Your task to perform on an android device: Add "dell xps" to the cart on newegg.com Image 0: 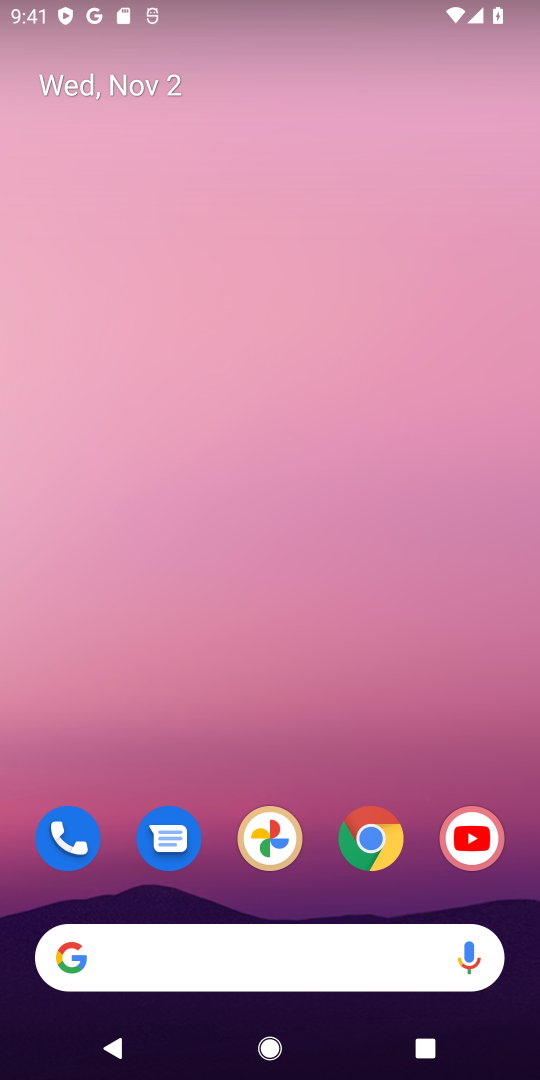
Step 0: click (386, 849)
Your task to perform on an android device: Add "dell xps" to the cart on newegg.com Image 1: 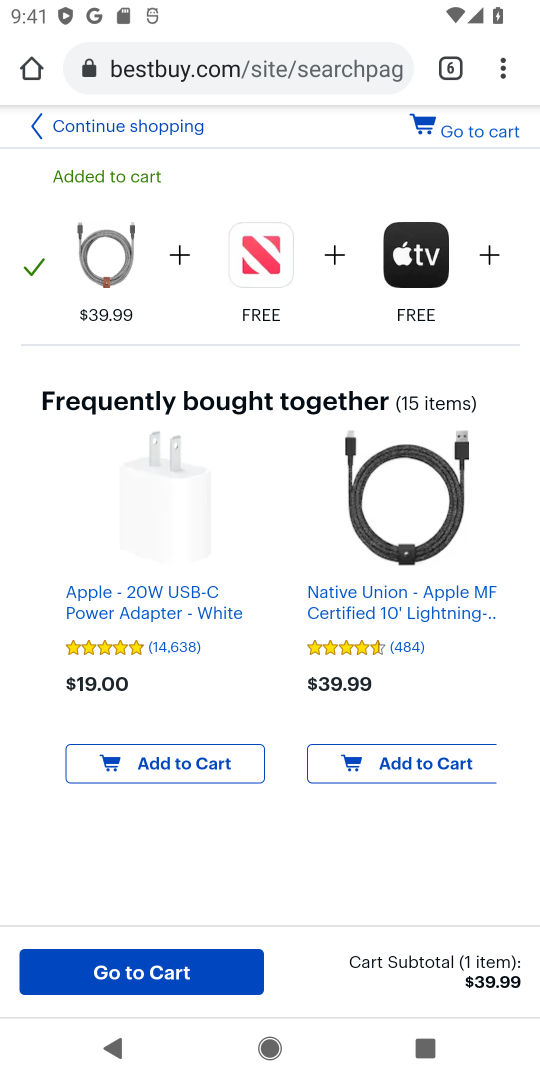
Step 1: click (445, 60)
Your task to perform on an android device: Add "dell xps" to the cart on newegg.com Image 2: 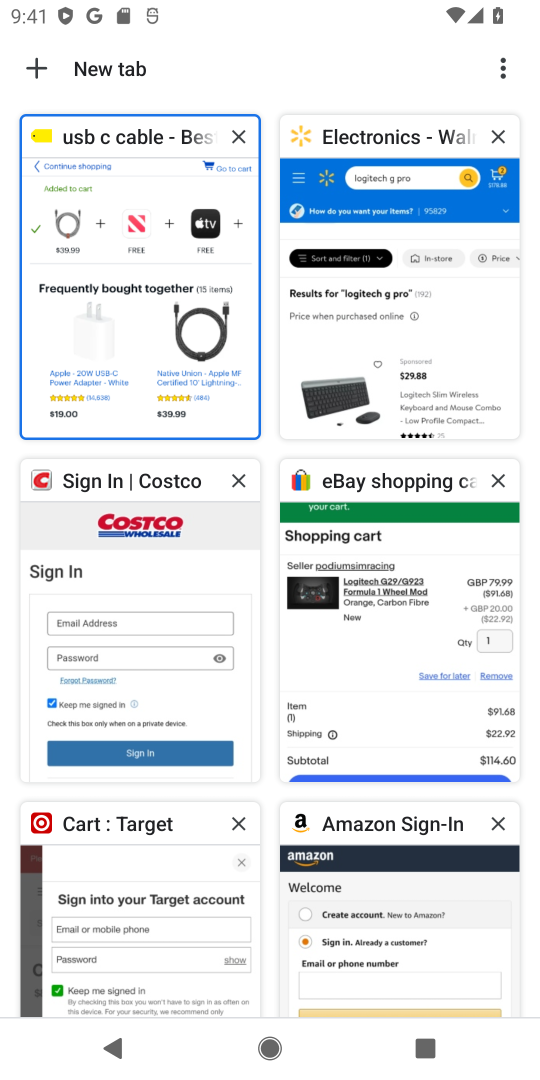
Step 2: click (38, 71)
Your task to perform on an android device: Add "dell xps" to the cart on newegg.com Image 3: 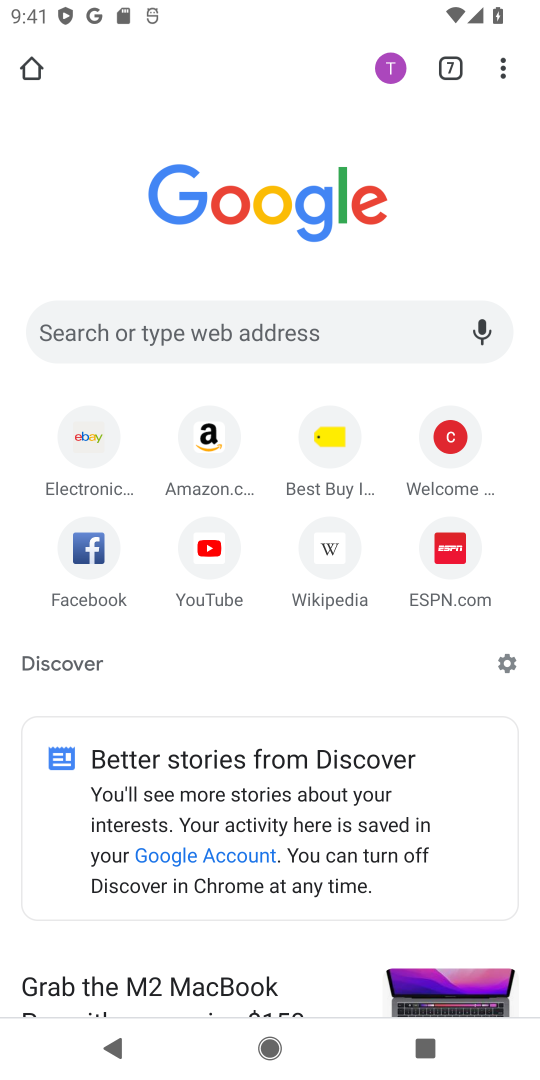
Step 3: click (179, 319)
Your task to perform on an android device: Add "dell xps" to the cart on newegg.com Image 4: 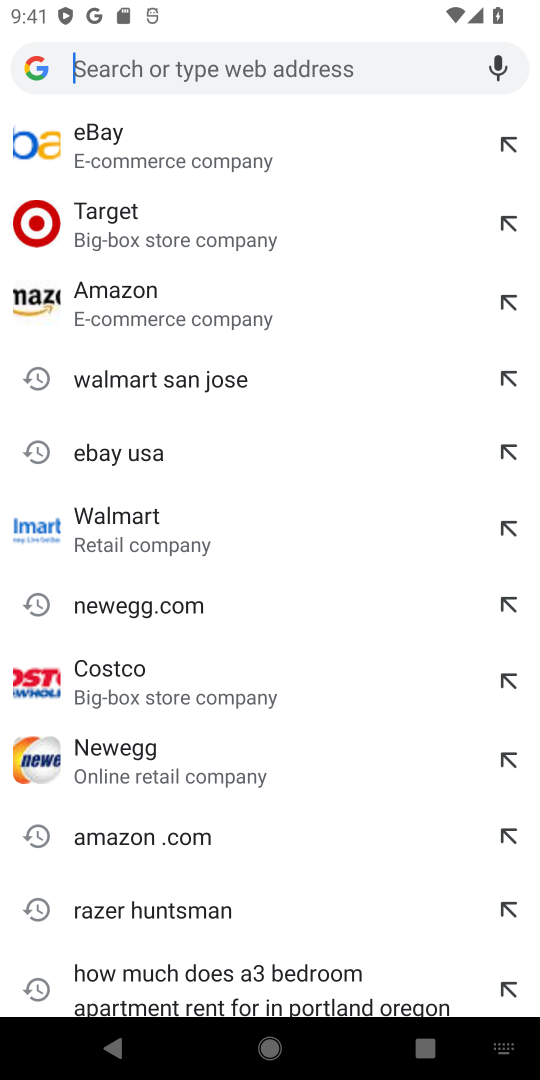
Step 4: click (151, 769)
Your task to perform on an android device: Add "dell xps" to the cart on newegg.com Image 5: 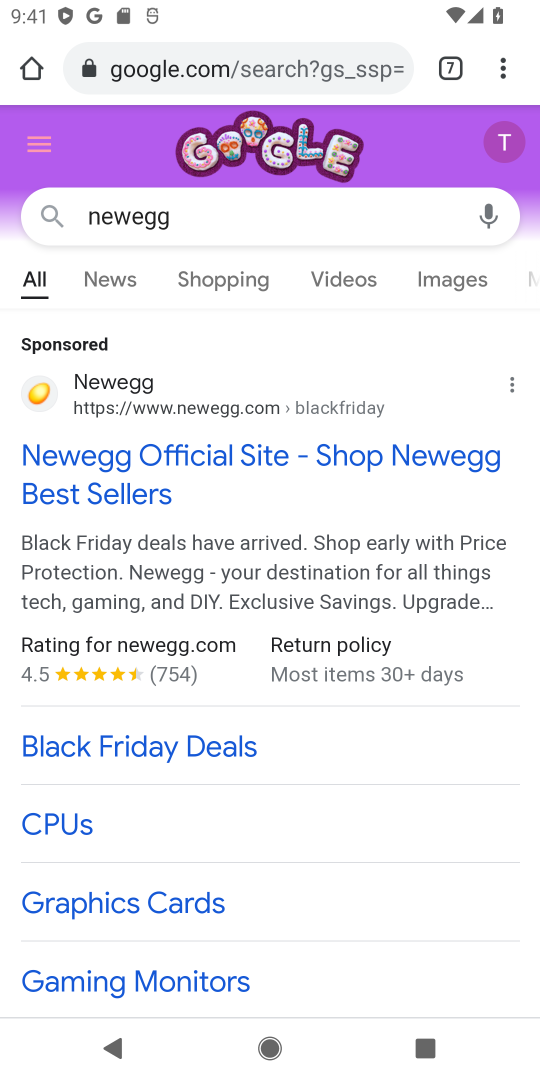
Step 5: drag from (264, 885) to (228, 482)
Your task to perform on an android device: Add "dell xps" to the cart on newegg.com Image 6: 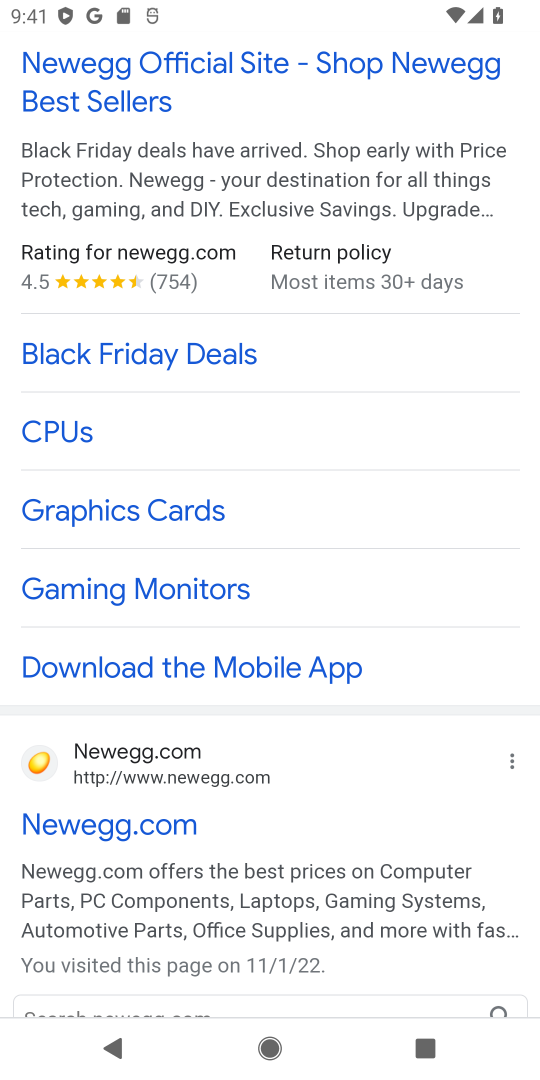
Step 6: drag from (223, 858) to (236, 431)
Your task to perform on an android device: Add "dell xps" to the cart on newegg.com Image 7: 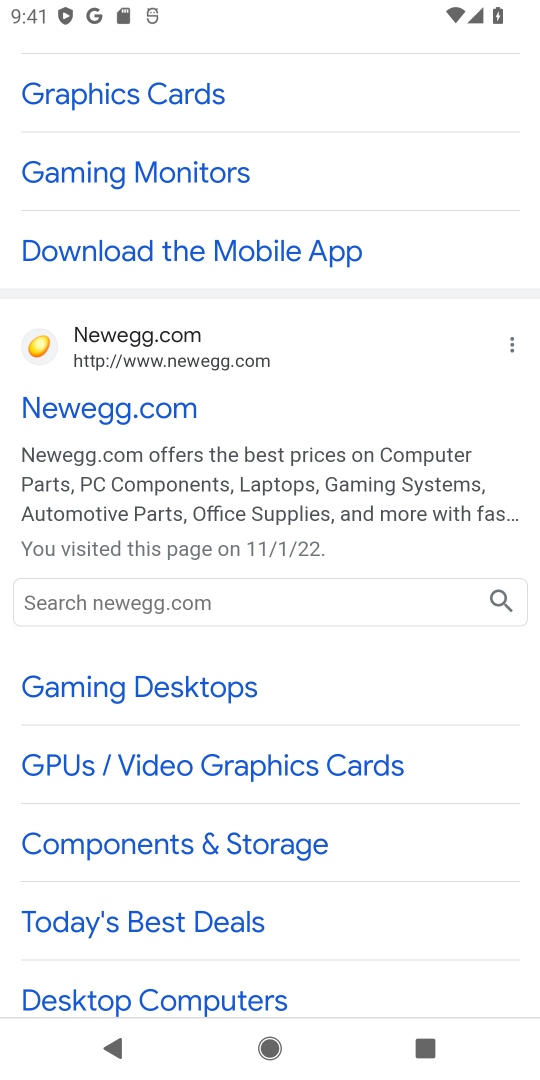
Step 7: click (91, 597)
Your task to perform on an android device: Add "dell xps" to the cart on newegg.com Image 8: 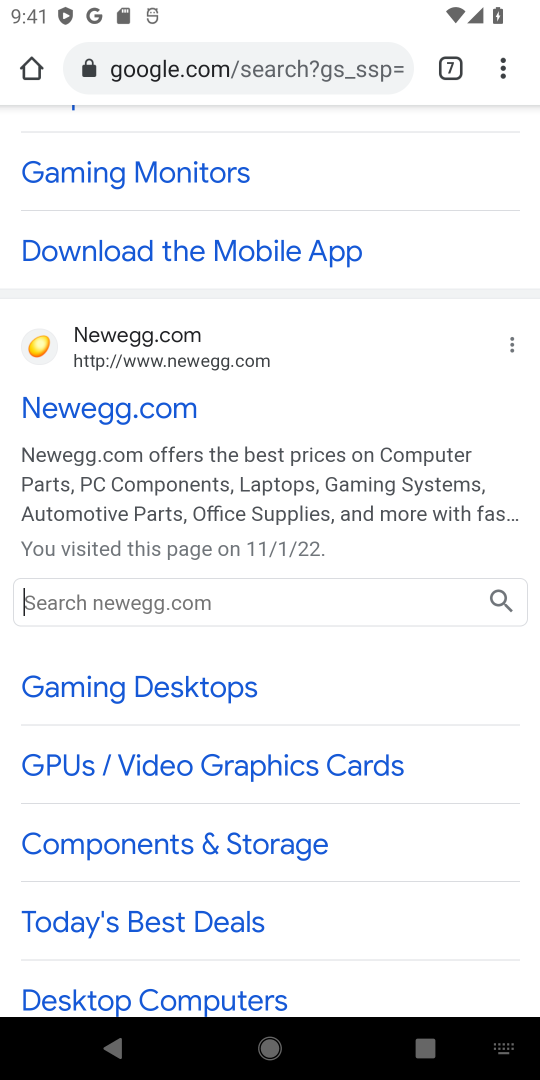
Step 8: type "dell xps"
Your task to perform on an android device: Add "dell xps" to the cart on newegg.com Image 9: 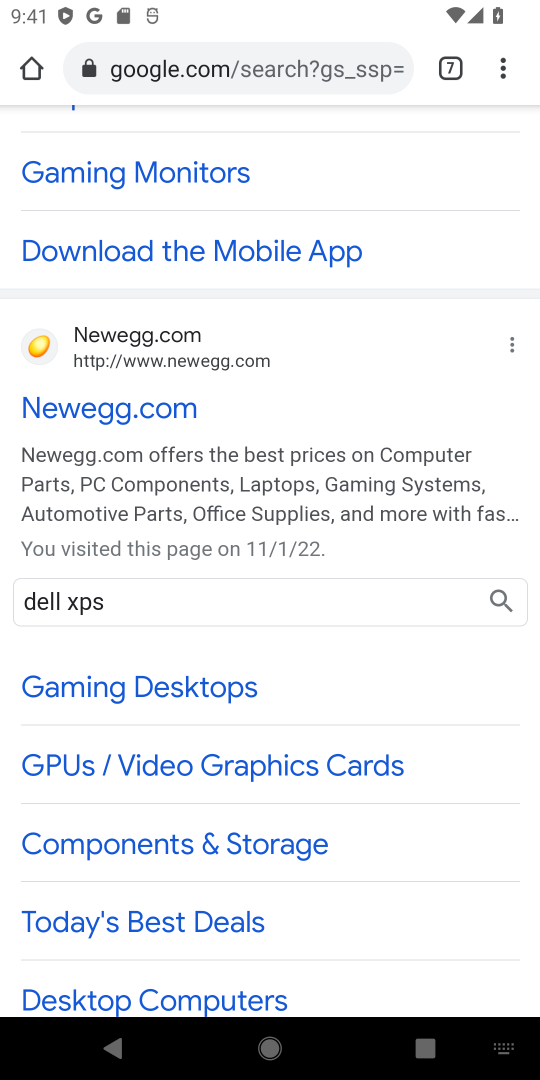
Step 9: click (497, 594)
Your task to perform on an android device: Add "dell xps" to the cart on newegg.com Image 10: 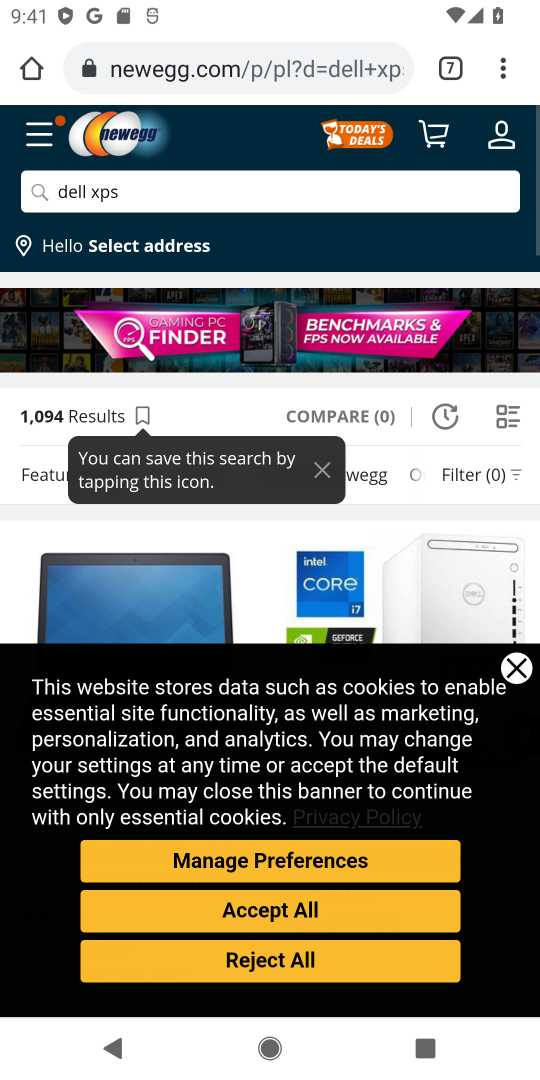
Step 10: click (338, 719)
Your task to perform on an android device: Add "dell xps" to the cart on newegg.com Image 11: 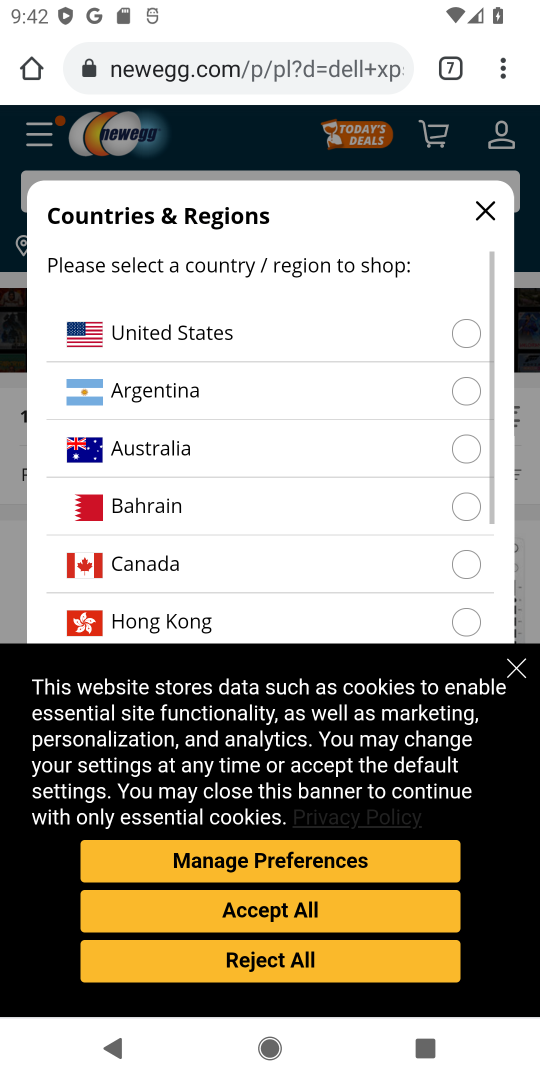
Step 11: click (521, 659)
Your task to perform on an android device: Add "dell xps" to the cart on newegg.com Image 12: 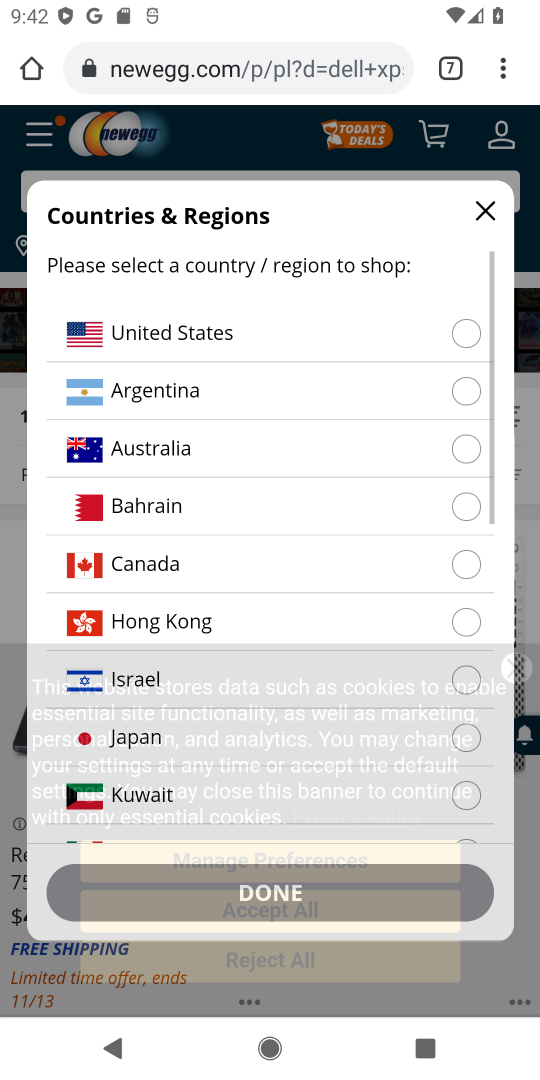
Step 12: click (467, 337)
Your task to perform on an android device: Add "dell xps" to the cart on newegg.com Image 13: 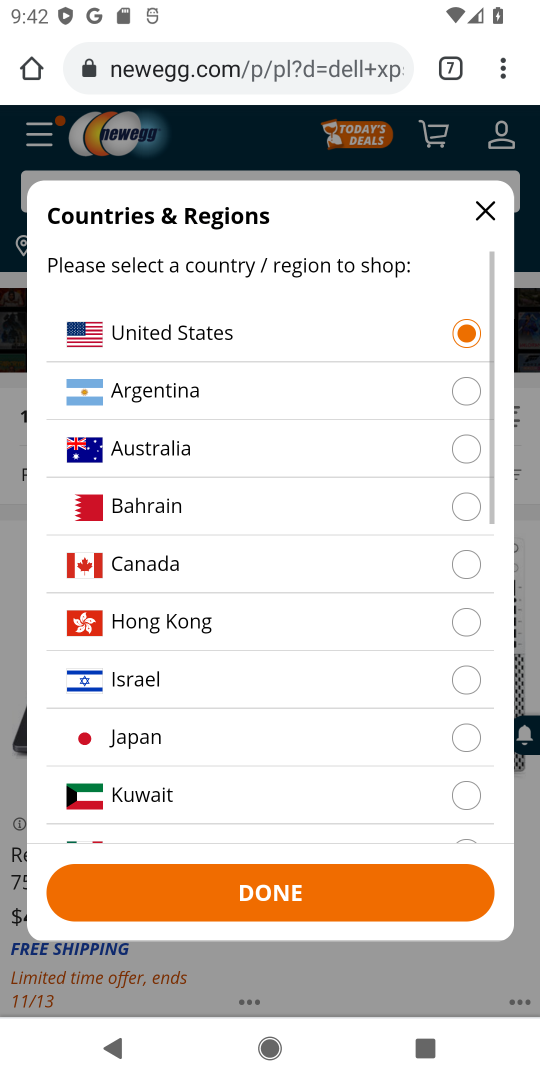
Step 13: click (340, 900)
Your task to perform on an android device: Add "dell xps" to the cart on newegg.com Image 14: 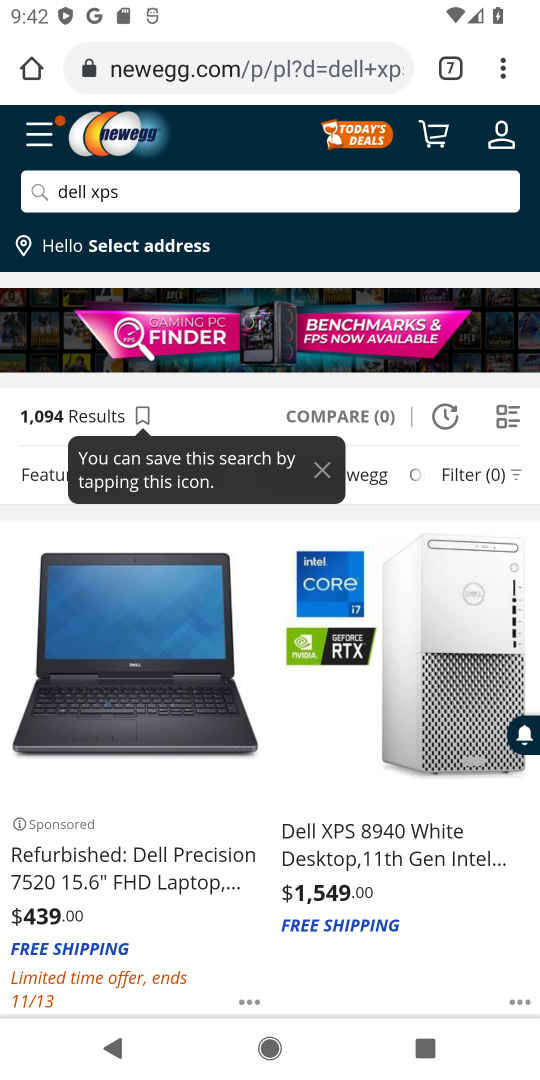
Step 14: click (348, 835)
Your task to perform on an android device: Add "dell xps" to the cart on newegg.com Image 15: 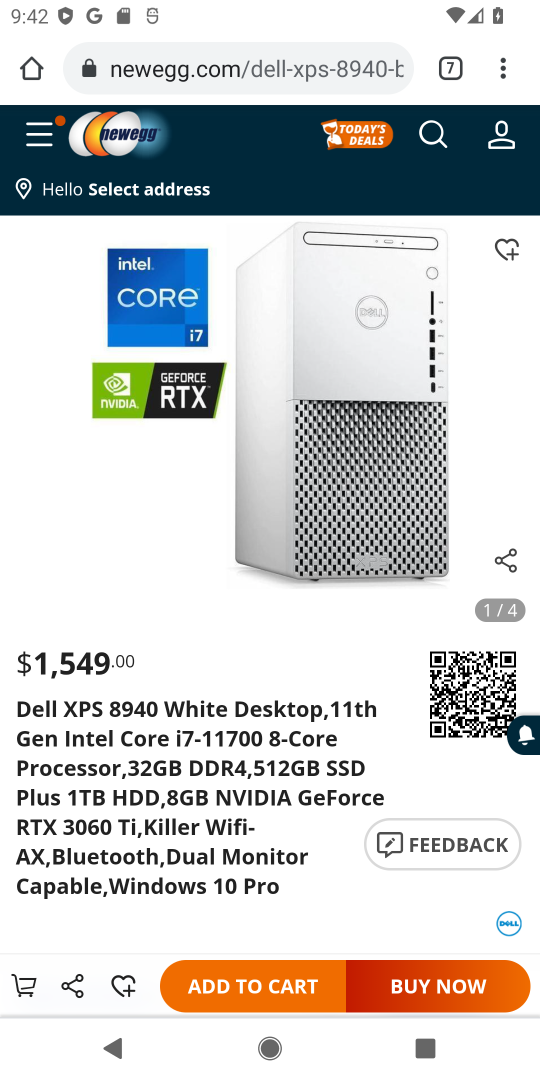
Step 15: click (248, 986)
Your task to perform on an android device: Add "dell xps" to the cart on newegg.com Image 16: 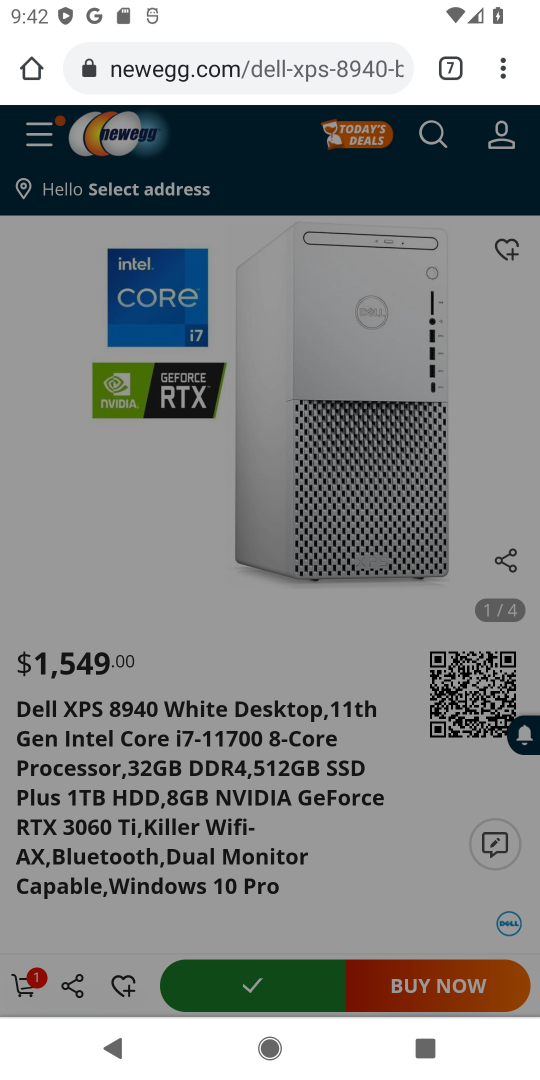
Step 16: task complete